Your task to perform on an android device: Turn on the flashlight Image 0: 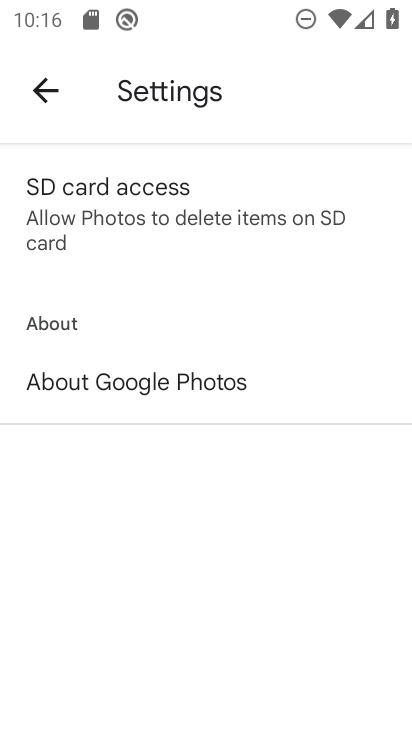
Step 0: press home button
Your task to perform on an android device: Turn on the flashlight Image 1: 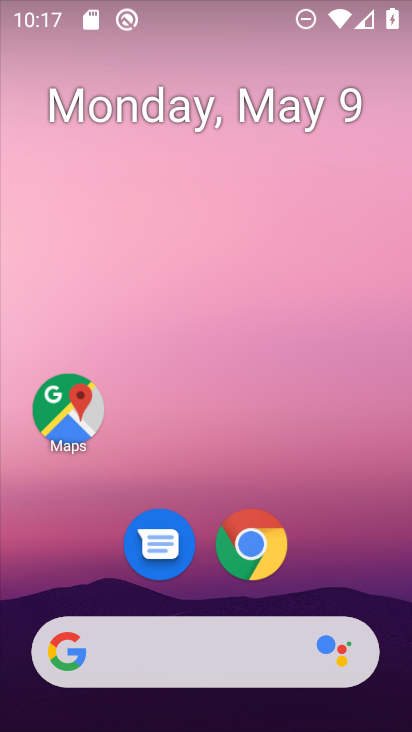
Step 1: drag from (338, 571) to (170, 45)
Your task to perform on an android device: Turn on the flashlight Image 2: 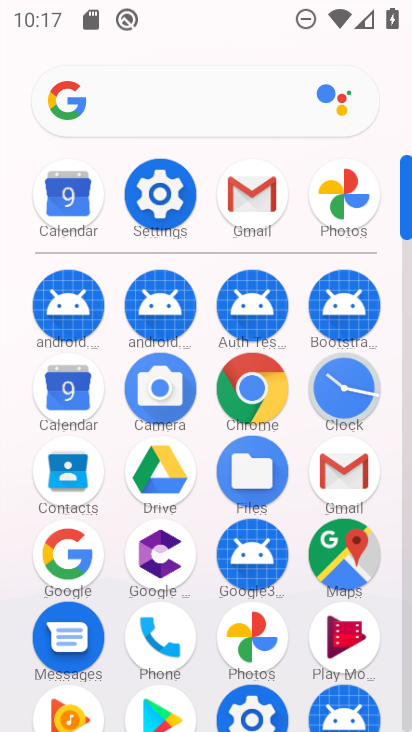
Step 2: click (147, 177)
Your task to perform on an android device: Turn on the flashlight Image 3: 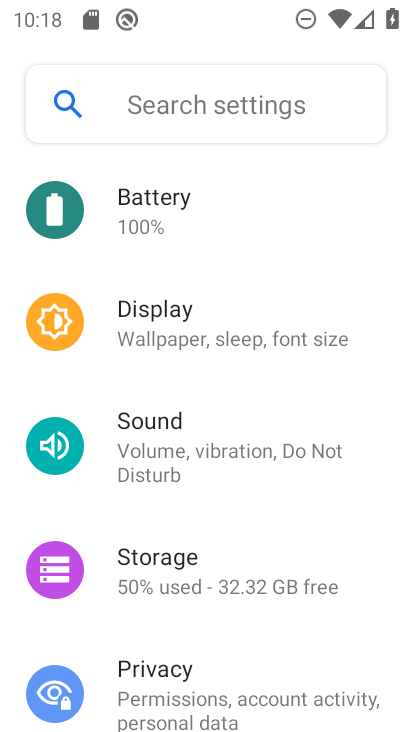
Step 3: task complete